Your task to perform on an android device: Show me the alarms in the clock app Image 0: 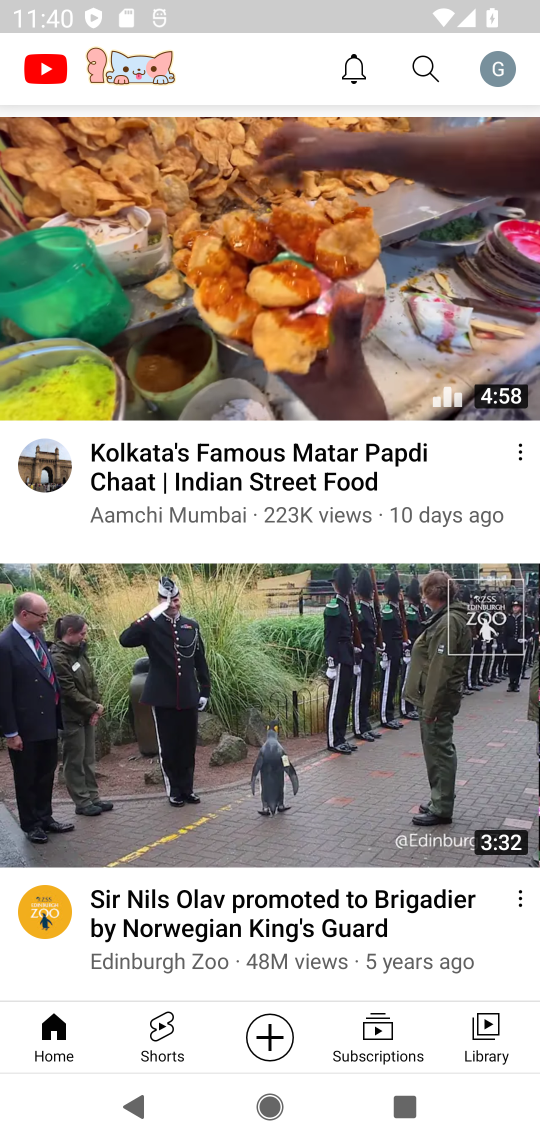
Step 0: press home button
Your task to perform on an android device: Show me the alarms in the clock app Image 1: 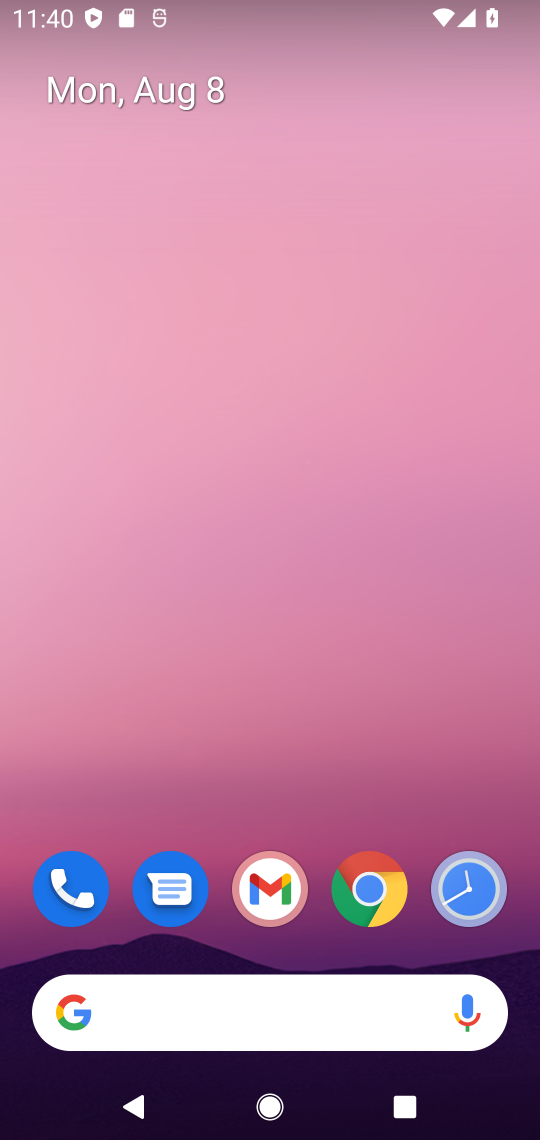
Step 1: click (475, 882)
Your task to perform on an android device: Show me the alarms in the clock app Image 2: 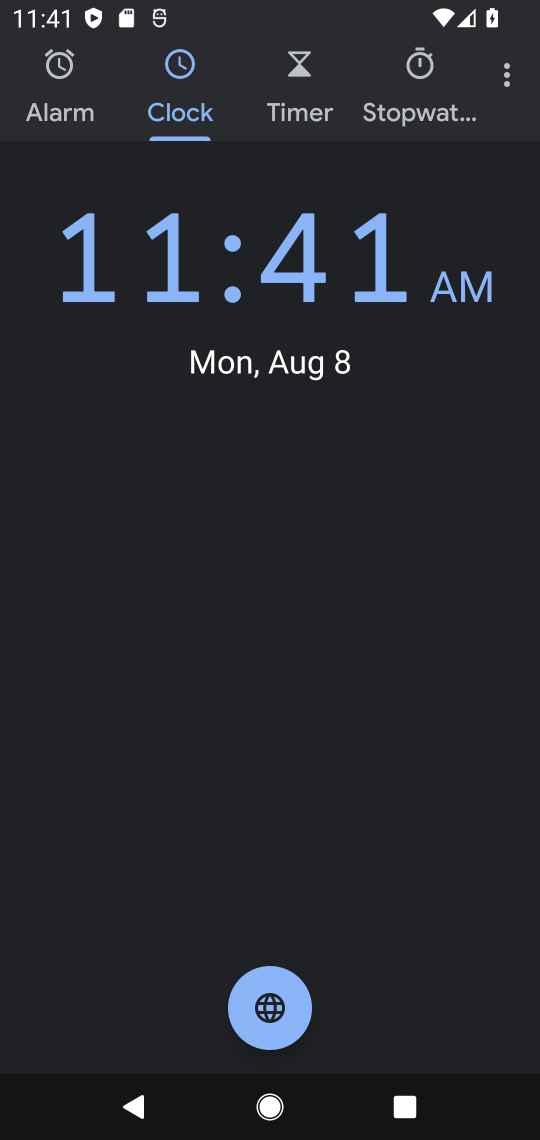
Step 2: click (51, 67)
Your task to perform on an android device: Show me the alarms in the clock app Image 3: 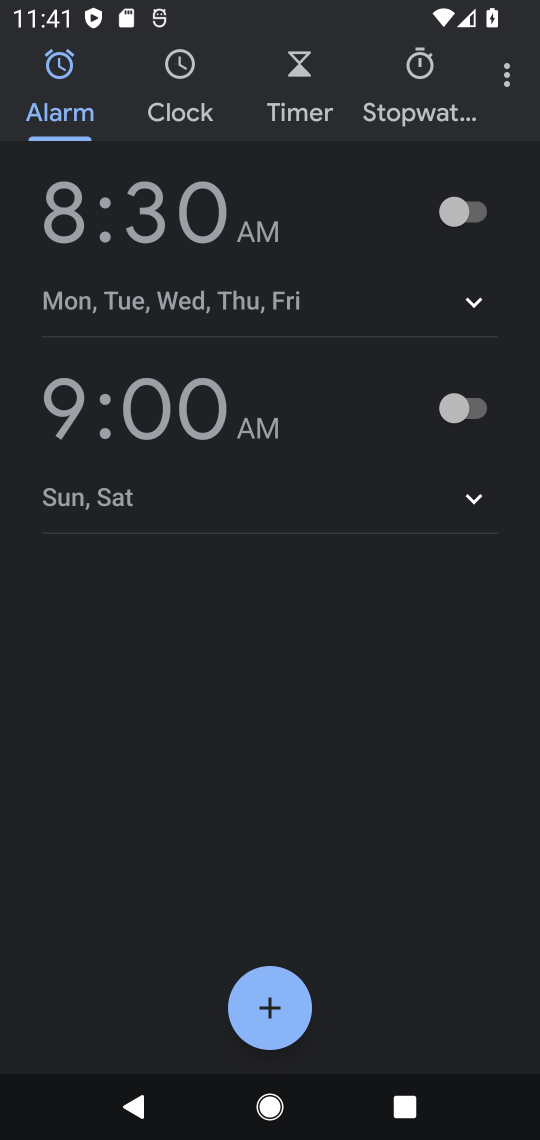
Step 3: task complete